Your task to perform on an android device: See recent photos Image 0: 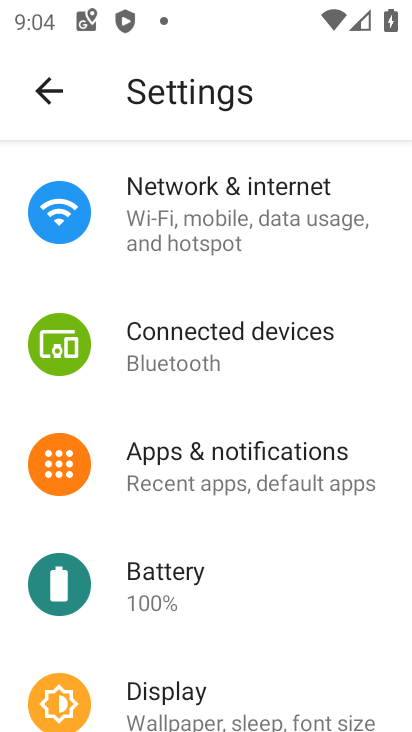
Step 0: press home button
Your task to perform on an android device: See recent photos Image 1: 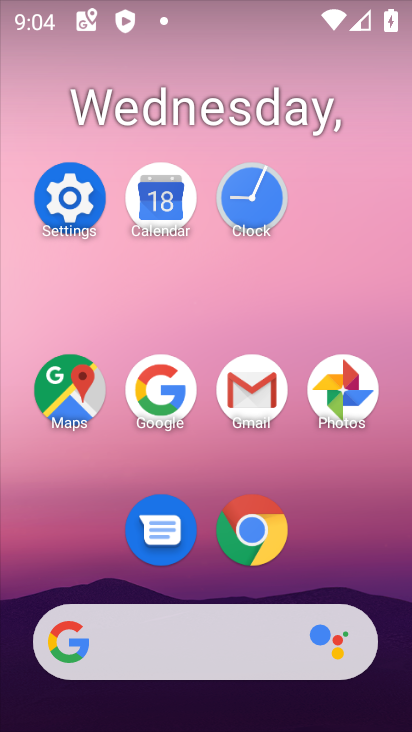
Step 1: click (370, 398)
Your task to perform on an android device: See recent photos Image 2: 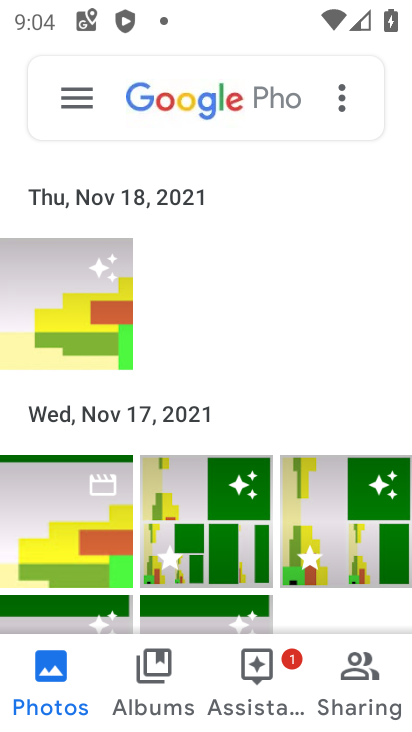
Step 2: task complete